Your task to perform on an android device: Go to Google maps Image 0: 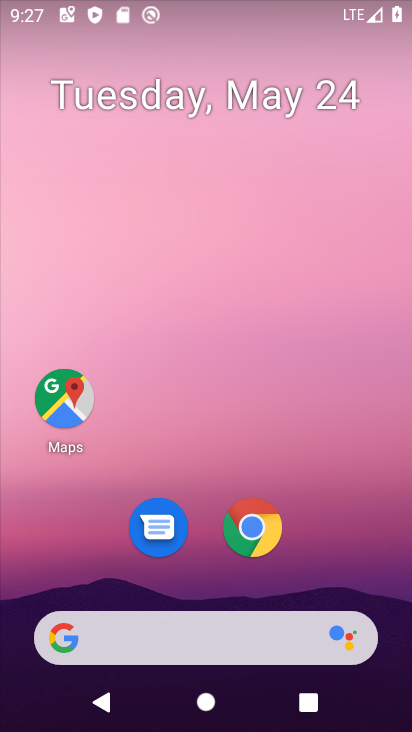
Step 0: click (66, 415)
Your task to perform on an android device: Go to Google maps Image 1: 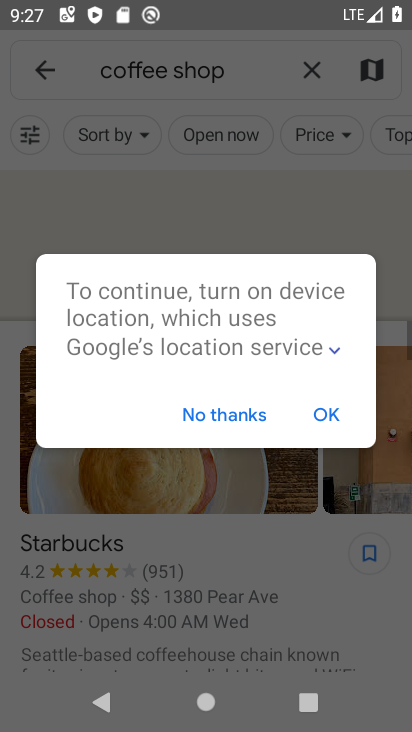
Step 1: task complete